Your task to perform on an android device: Search for macbook on bestbuy.com, select the first entry, and add it to the cart. Image 0: 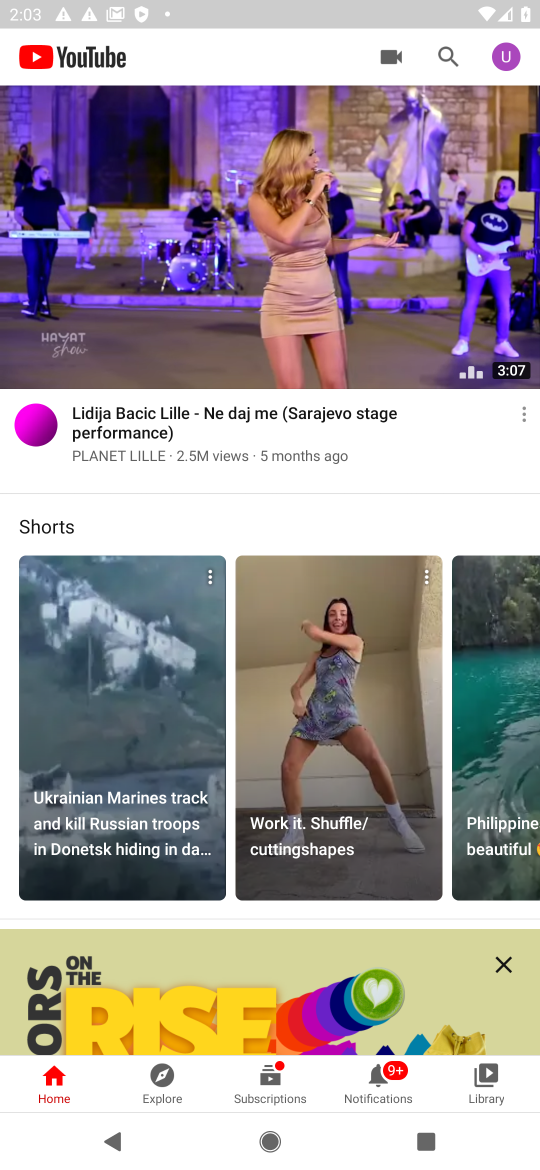
Step 0: press home button
Your task to perform on an android device: Search for macbook on bestbuy.com, select the first entry, and add it to the cart. Image 1: 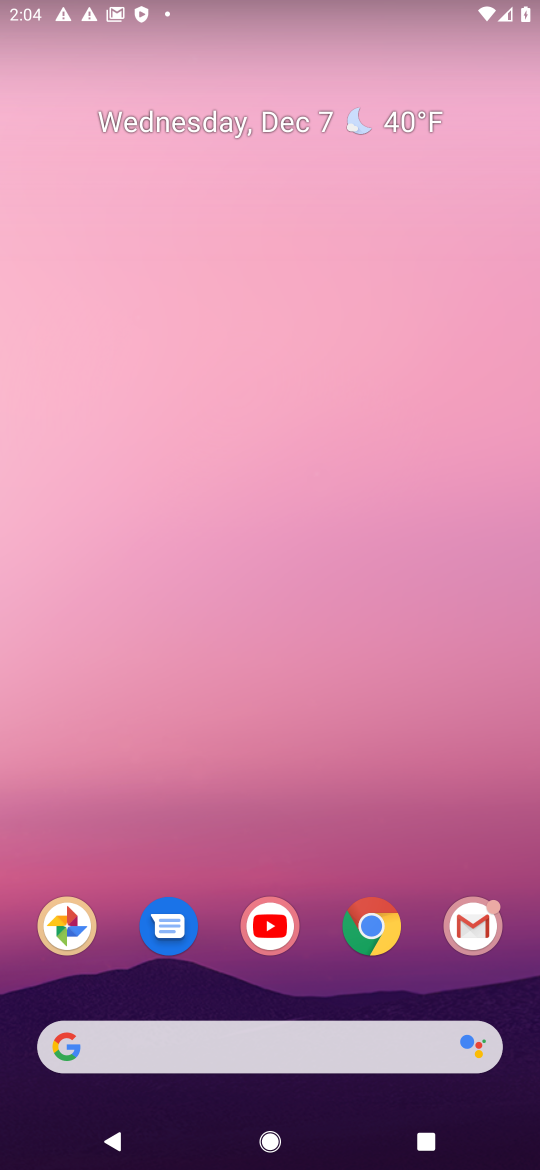
Step 1: drag from (312, 722) to (353, 282)
Your task to perform on an android device: Search for macbook on bestbuy.com, select the first entry, and add it to the cart. Image 2: 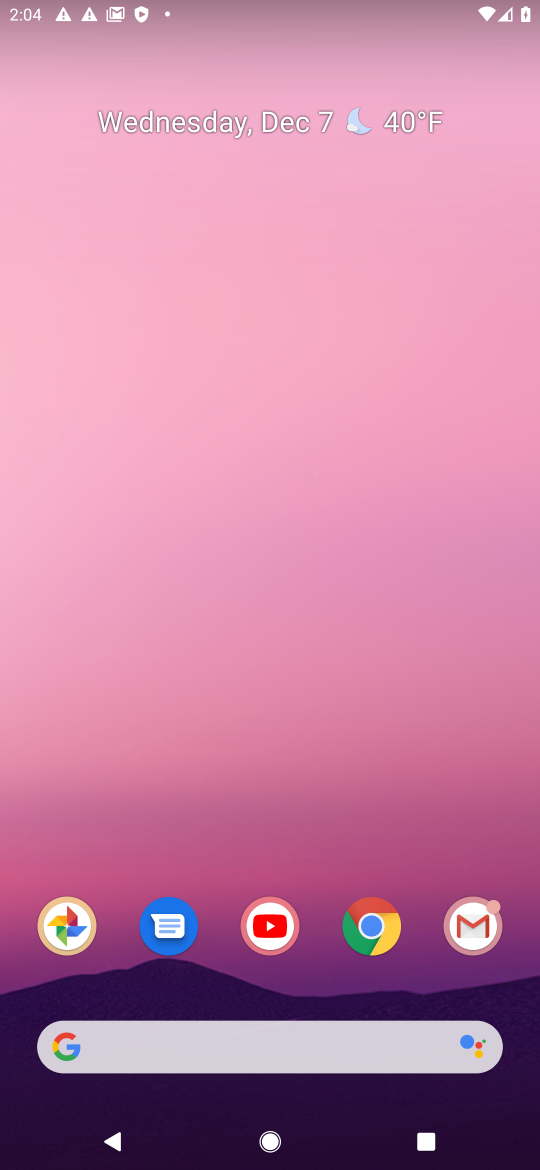
Step 2: drag from (232, 1020) to (285, 240)
Your task to perform on an android device: Search for macbook on bestbuy.com, select the first entry, and add it to the cart. Image 3: 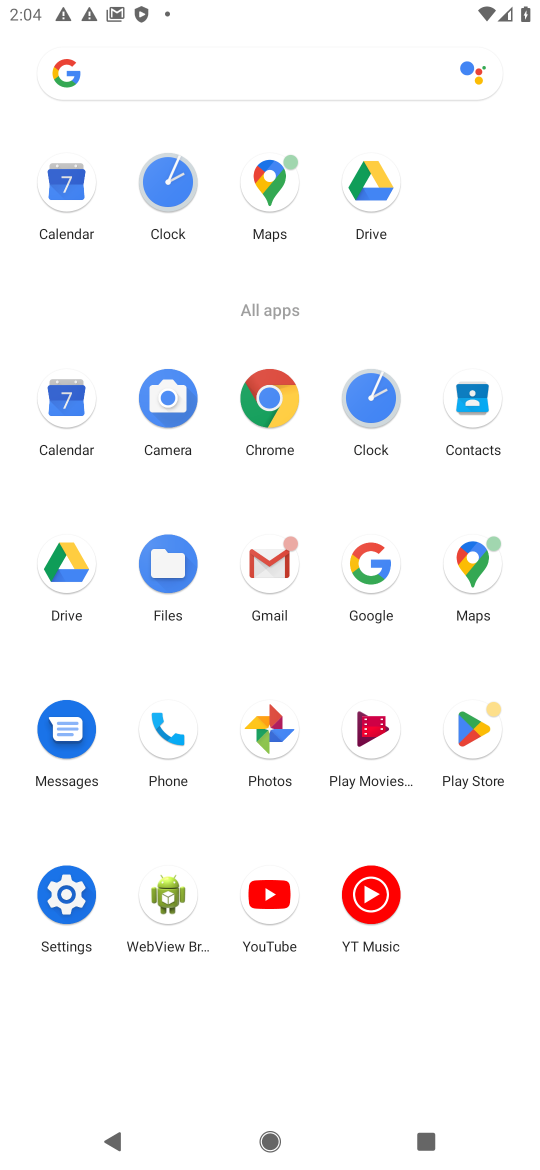
Step 3: click (370, 567)
Your task to perform on an android device: Search for macbook on bestbuy.com, select the first entry, and add it to the cart. Image 4: 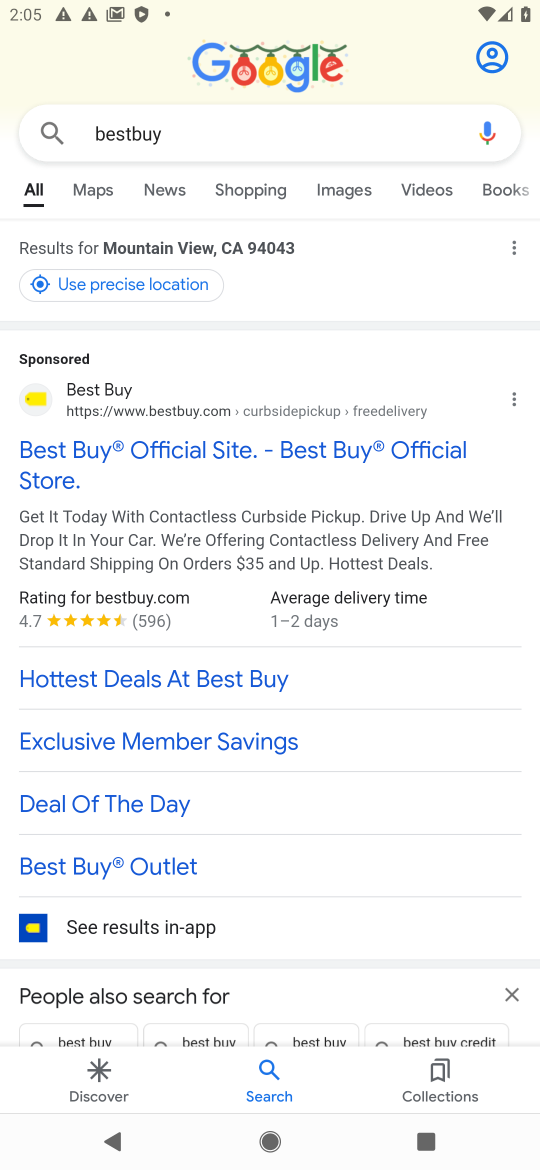
Step 4: click (120, 434)
Your task to perform on an android device: Search for macbook on bestbuy.com, select the first entry, and add it to the cart. Image 5: 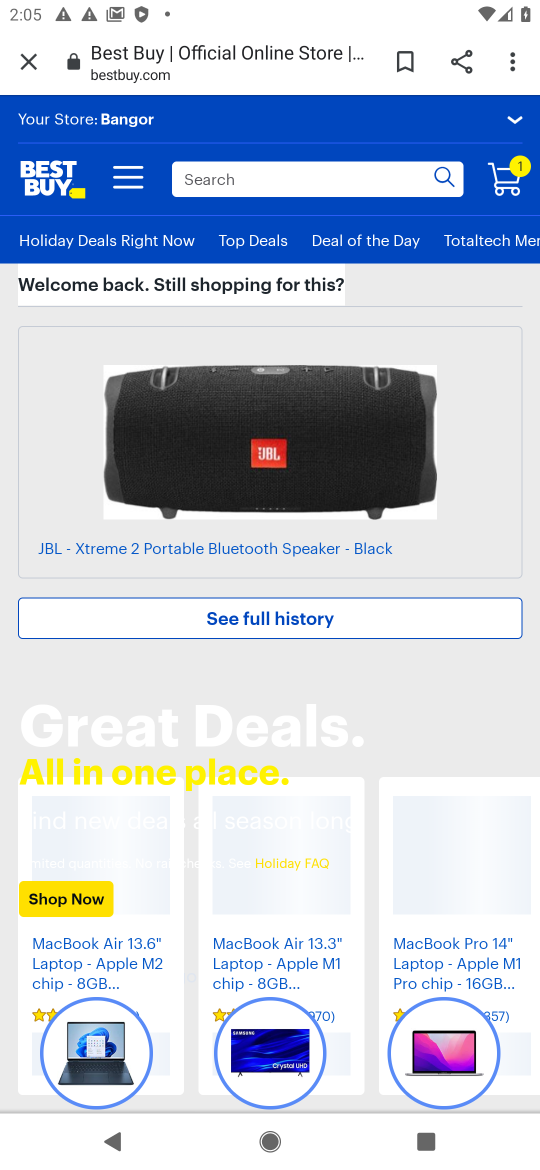
Step 5: click (214, 177)
Your task to perform on an android device: Search for macbook on bestbuy.com, select the first entry, and add it to the cart. Image 6: 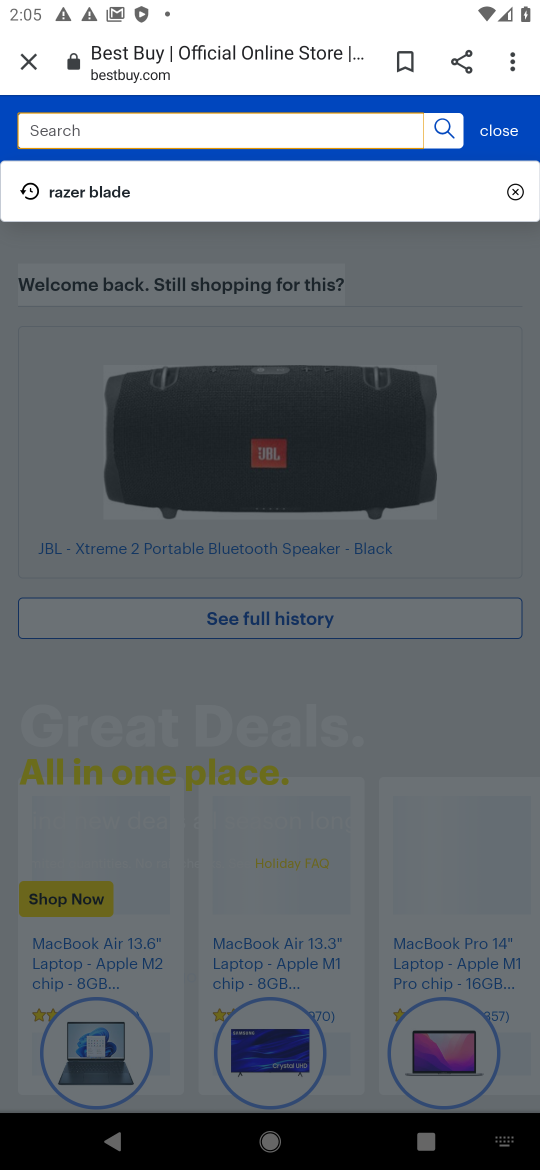
Step 6: type "macbook"
Your task to perform on an android device: Search for macbook on bestbuy.com, select the first entry, and add it to the cart. Image 7: 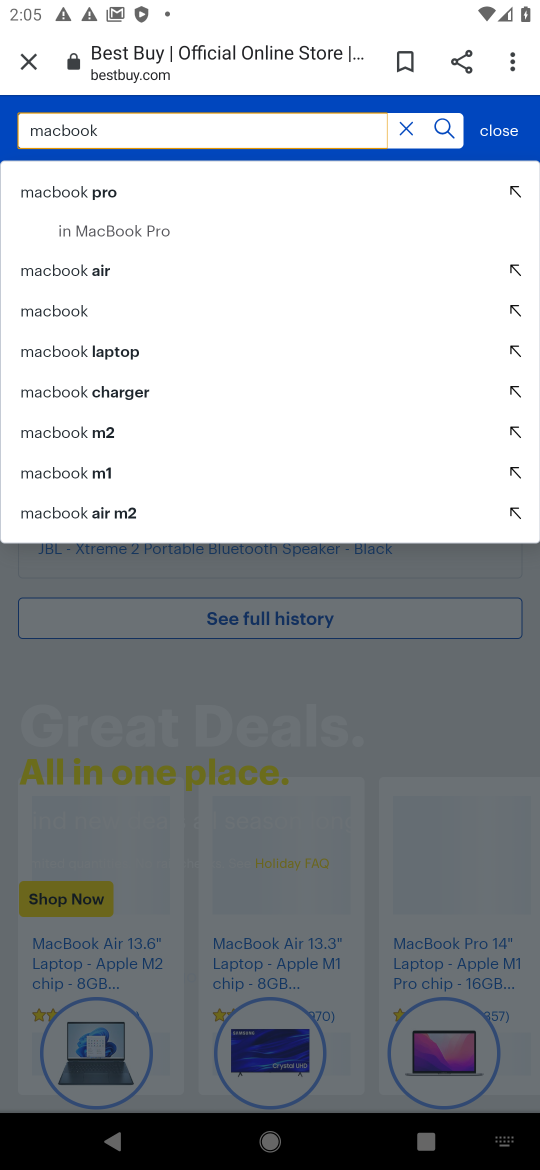
Step 7: click (433, 127)
Your task to perform on an android device: Search for macbook on bestbuy.com, select the first entry, and add it to the cart. Image 8: 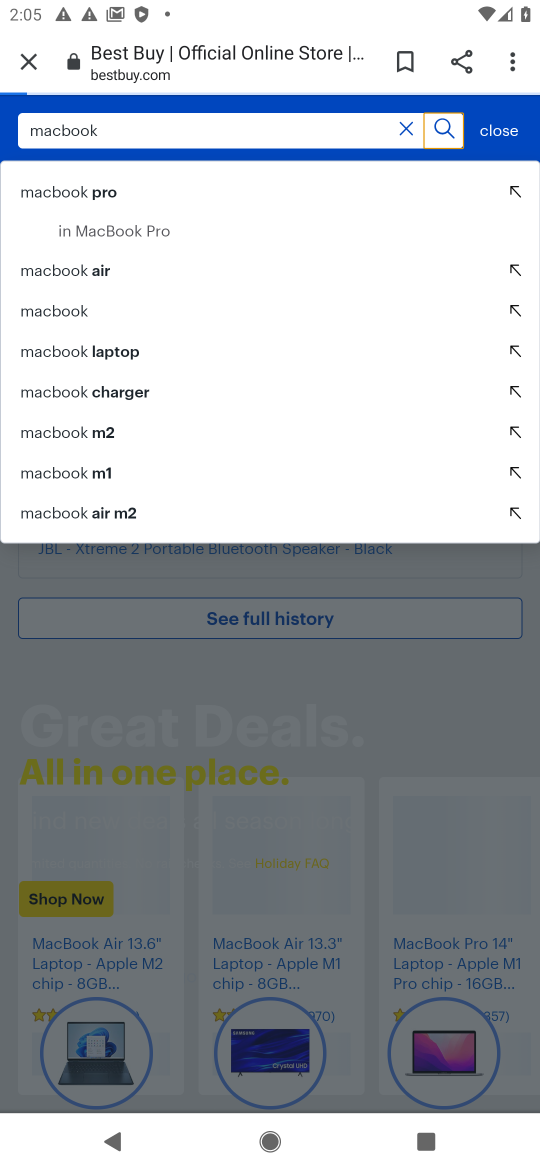
Step 8: click (445, 129)
Your task to perform on an android device: Search for macbook on bestbuy.com, select the first entry, and add it to the cart. Image 9: 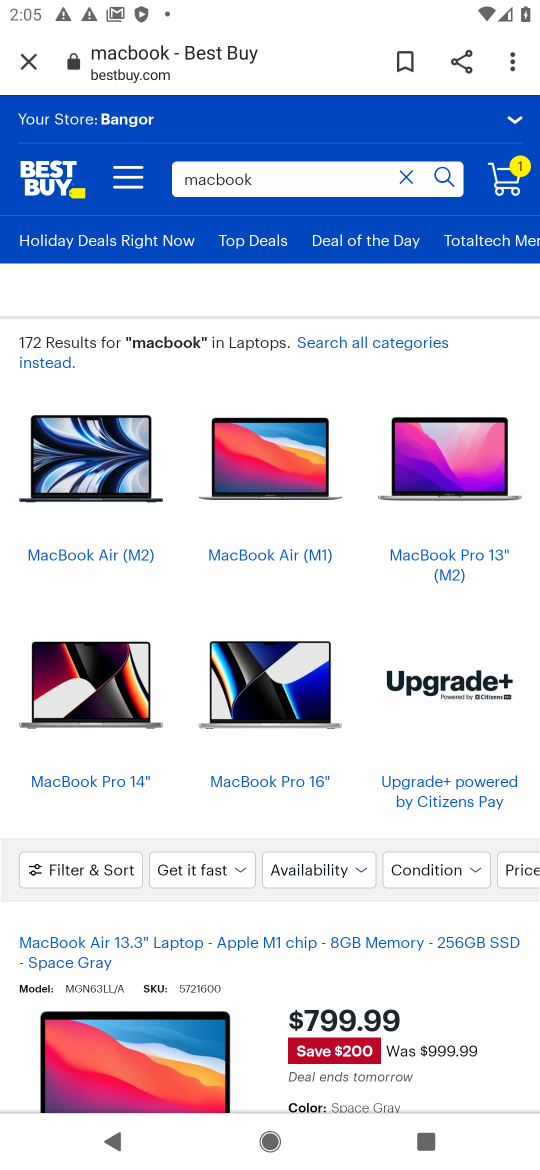
Step 9: drag from (132, 881) to (198, 320)
Your task to perform on an android device: Search for macbook on bestbuy.com, select the first entry, and add it to the cart. Image 10: 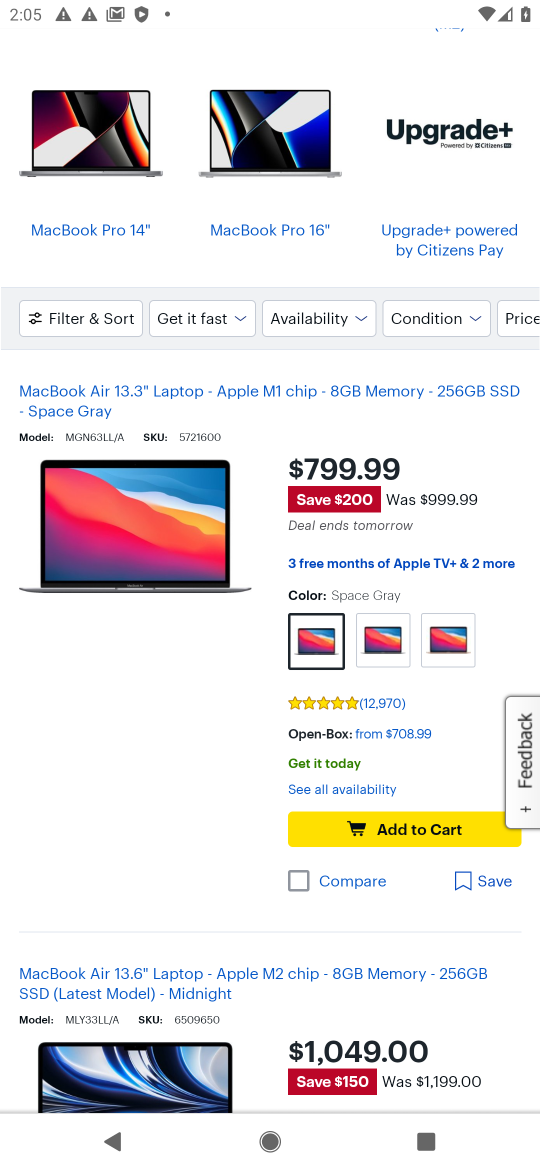
Step 10: click (408, 833)
Your task to perform on an android device: Search for macbook on bestbuy.com, select the first entry, and add it to the cart. Image 11: 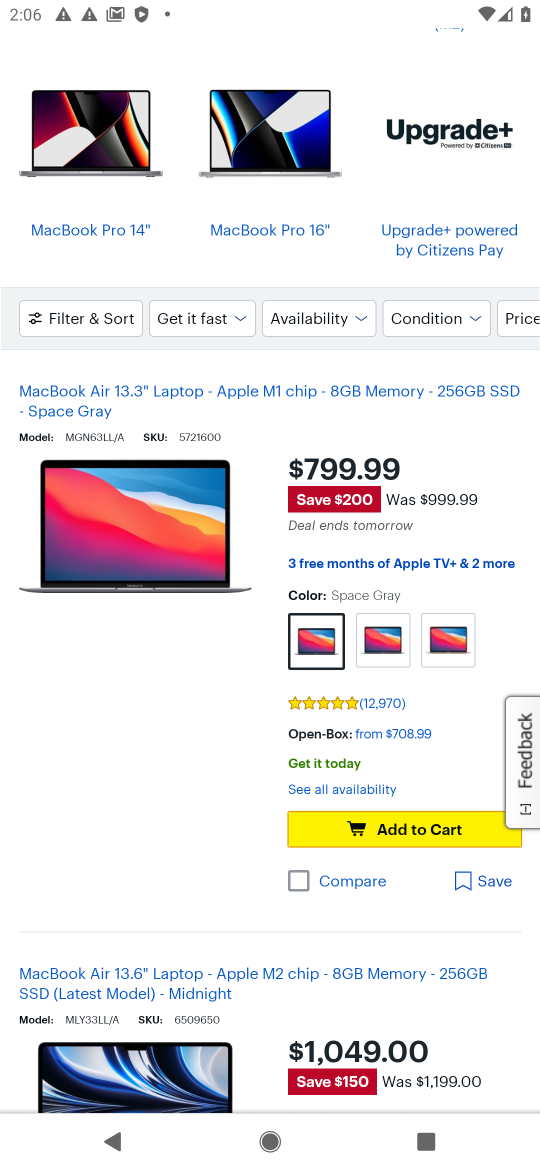
Step 11: click (408, 832)
Your task to perform on an android device: Search for macbook on bestbuy.com, select the first entry, and add it to the cart. Image 12: 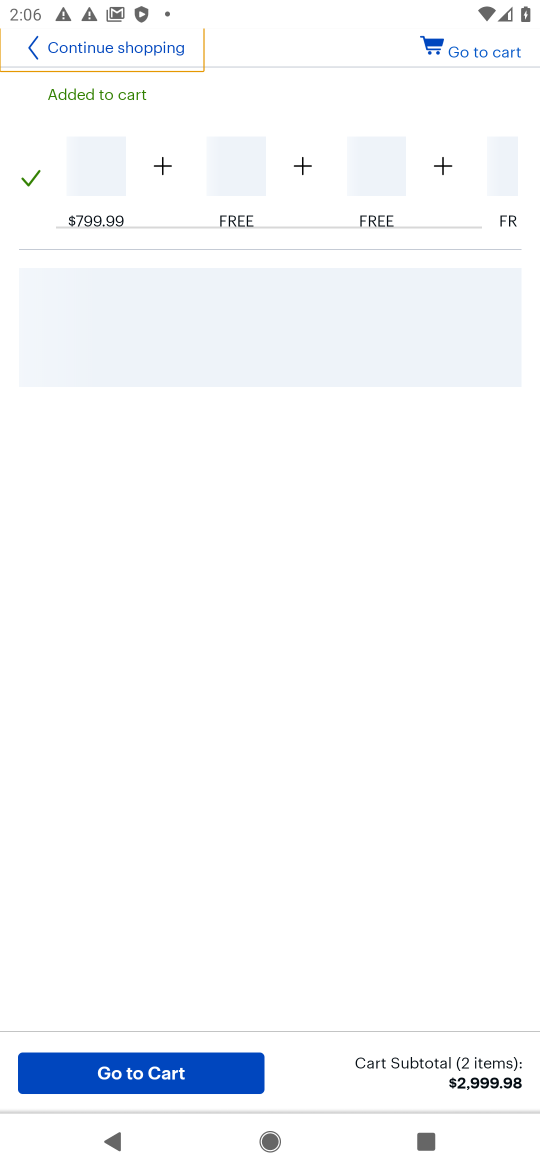
Step 12: task complete